Your task to perform on an android device: find which apps use the phone's location Image 0: 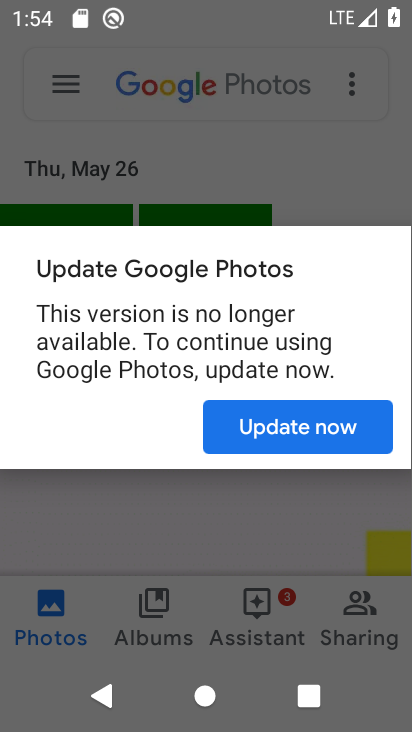
Step 0: press home button
Your task to perform on an android device: find which apps use the phone's location Image 1: 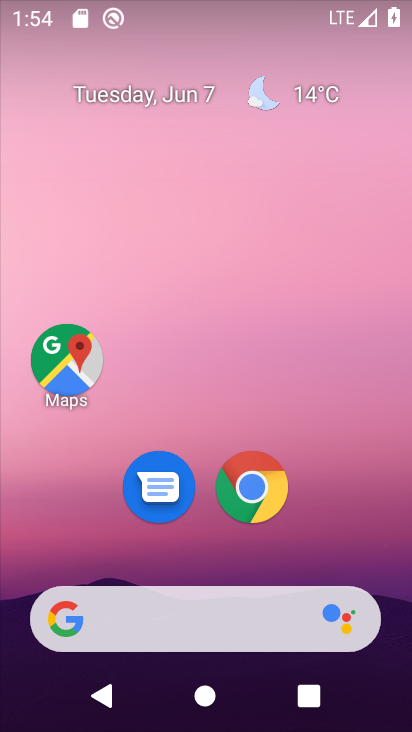
Step 1: drag from (205, 572) to (201, 173)
Your task to perform on an android device: find which apps use the phone's location Image 2: 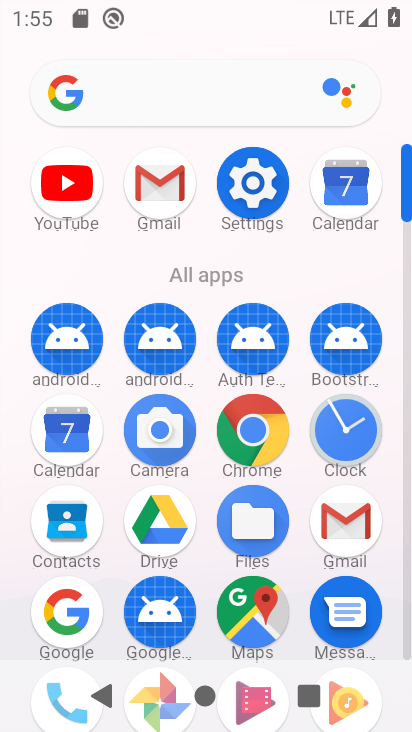
Step 2: click (274, 165)
Your task to perform on an android device: find which apps use the phone's location Image 3: 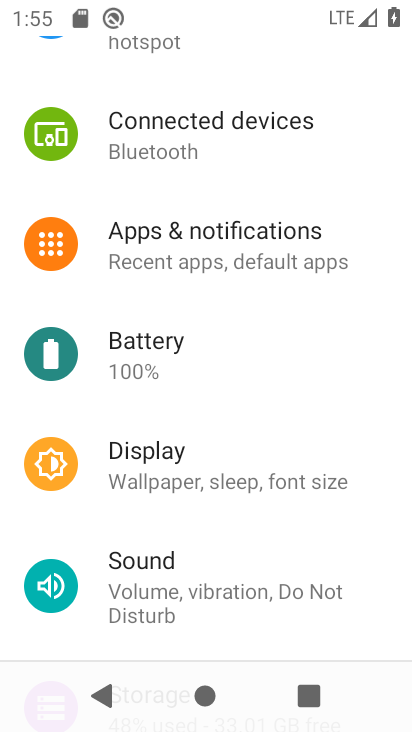
Step 3: drag from (188, 442) to (192, 88)
Your task to perform on an android device: find which apps use the phone's location Image 4: 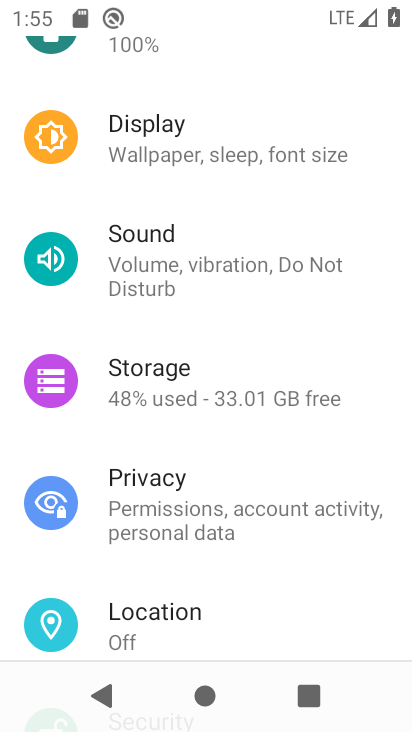
Step 4: click (209, 601)
Your task to perform on an android device: find which apps use the phone's location Image 5: 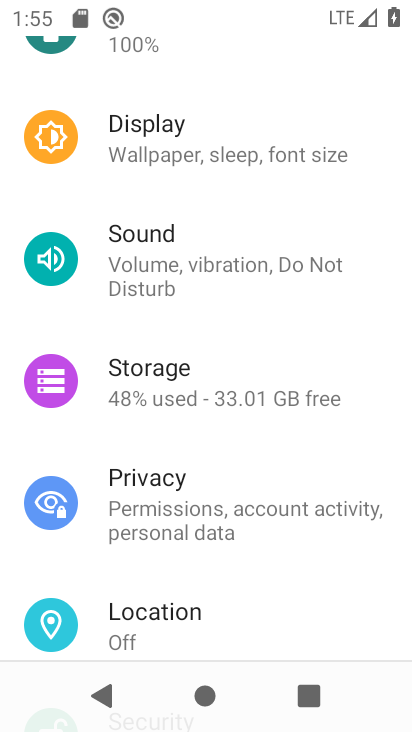
Step 5: drag from (209, 603) to (183, 97)
Your task to perform on an android device: find which apps use the phone's location Image 6: 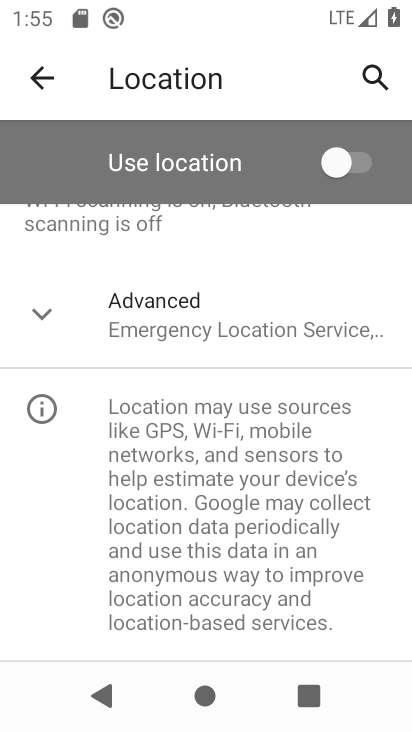
Step 6: click (192, 312)
Your task to perform on an android device: find which apps use the phone's location Image 7: 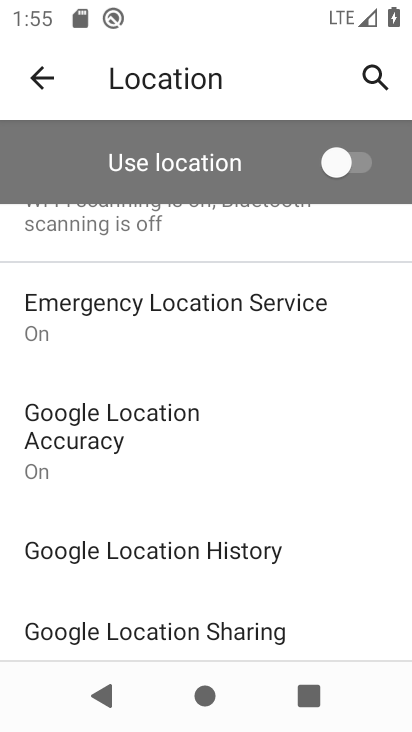
Step 7: drag from (158, 267) to (152, 612)
Your task to perform on an android device: find which apps use the phone's location Image 8: 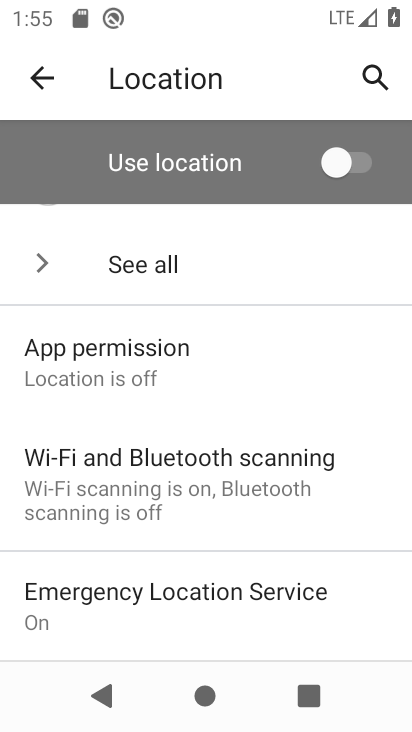
Step 8: click (121, 362)
Your task to perform on an android device: find which apps use the phone's location Image 9: 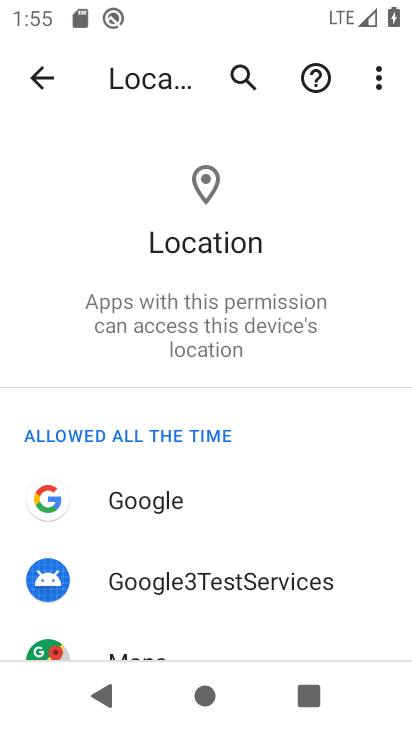
Step 9: task complete